Your task to perform on an android device: turn pop-ups off in chrome Image 0: 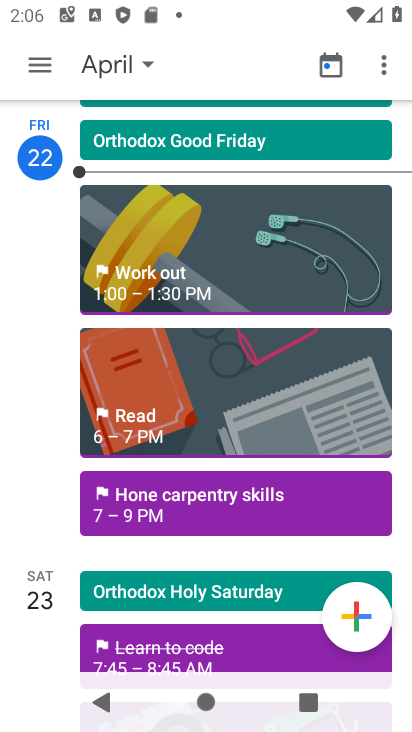
Step 0: press home button
Your task to perform on an android device: turn pop-ups off in chrome Image 1: 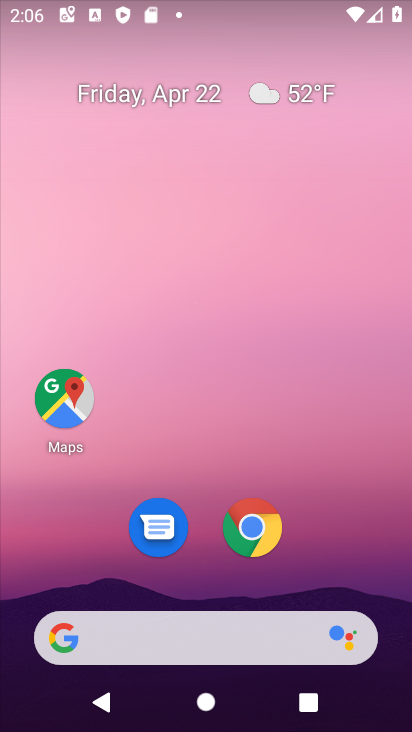
Step 1: drag from (345, 520) to (351, 112)
Your task to perform on an android device: turn pop-ups off in chrome Image 2: 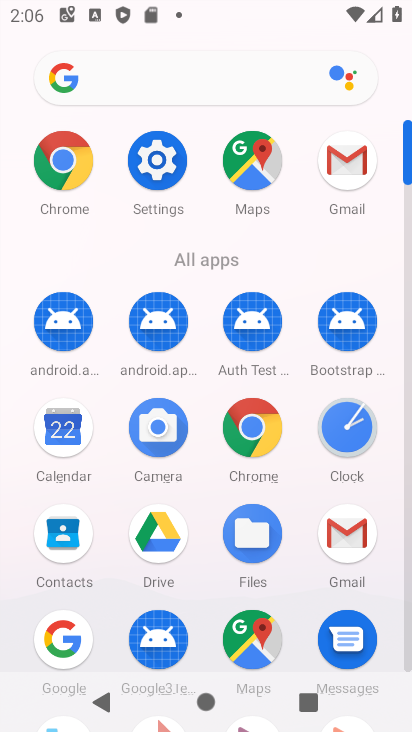
Step 2: click (50, 155)
Your task to perform on an android device: turn pop-ups off in chrome Image 3: 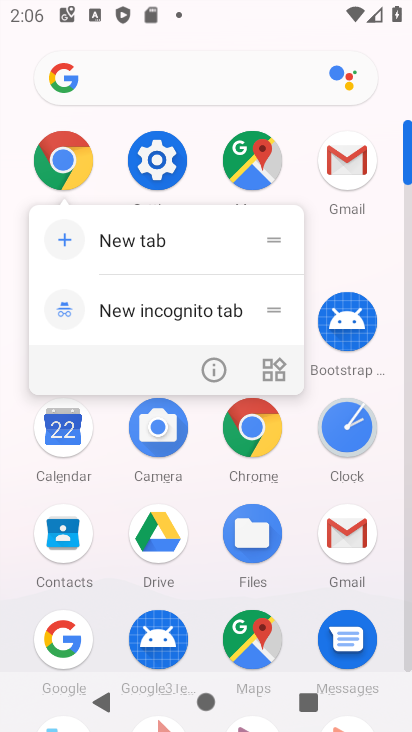
Step 3: click (53, 156)
Your task to perform on an android device: turn pop-ups off in chrome Image 4: 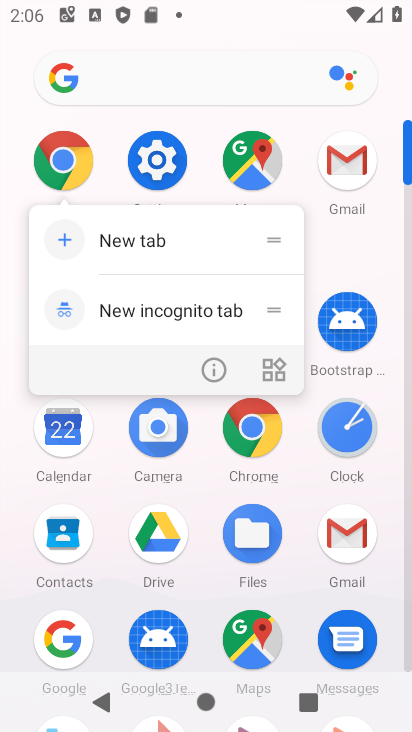
Step 4: click (52, 153)
Your task to perform on an android device: turn pop-ups off in chrome Image 5: 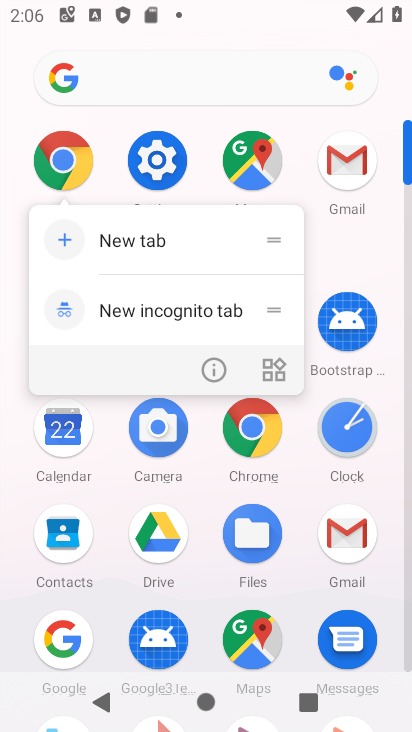
Step 5: click (52, 153)
Your task to perform on an android device: turn pop-ups off in chrome Image 6: 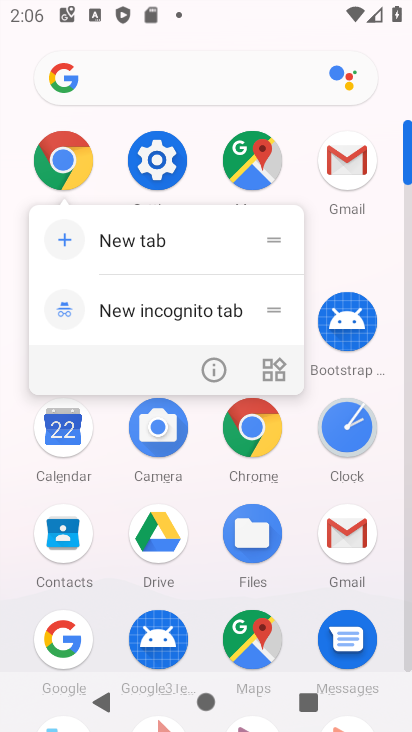
Step 6: click (52, 151)
Your task to perform on an android device: turn pop-ups off in chrome Image 7: 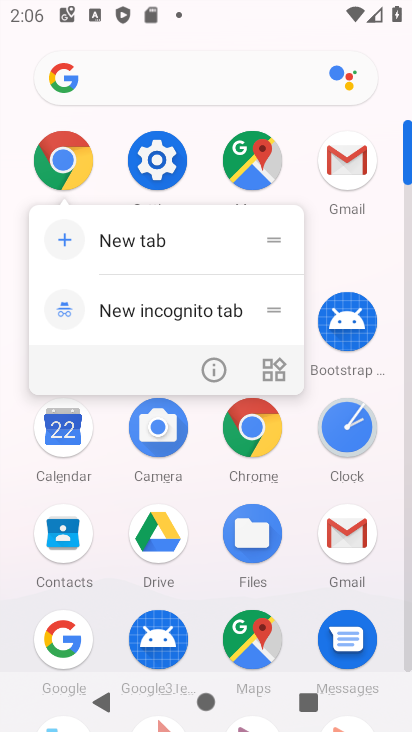
Step 7: click (52, 150)
Your task to perform on an android device: turn pop-ups off in chrome Image 8: 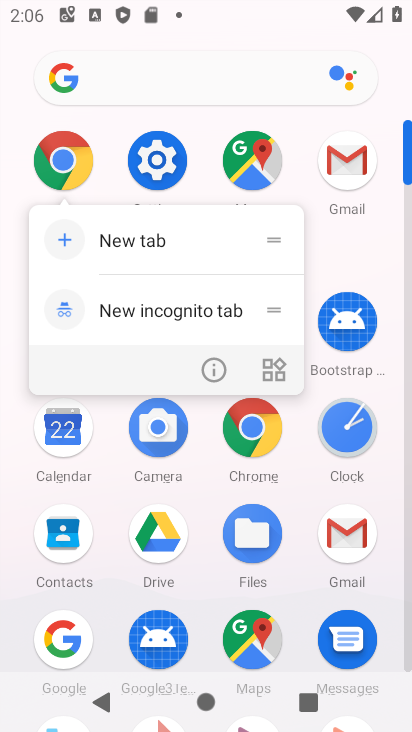
Step 8: click (52, 149)
Your task to perform on an android device: turn pop-ups off in chrome Image 9: 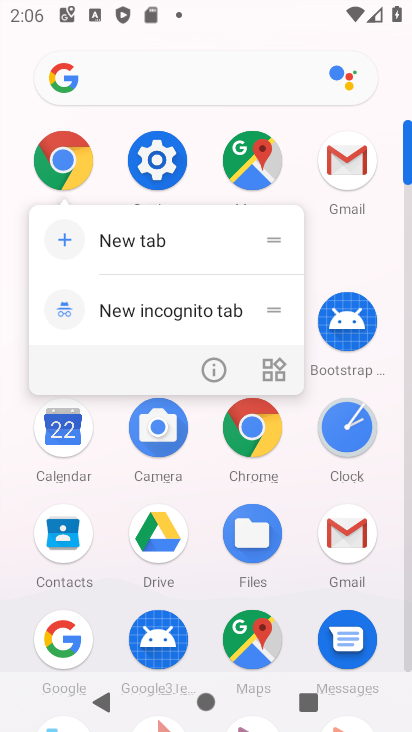
Step 9: click (52, 148)
Your task to perform on an android device: turn pop-ups off in chrome Image 10: 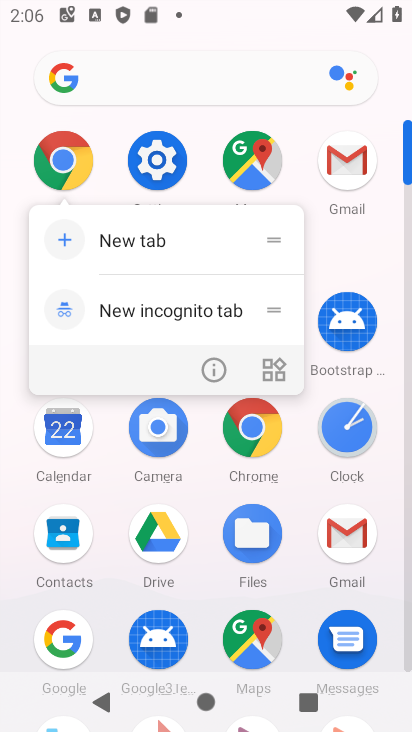
Step 10: click (52, 148)
Your task to perform on an android device: turn pop-ups off in chrome Image 11: 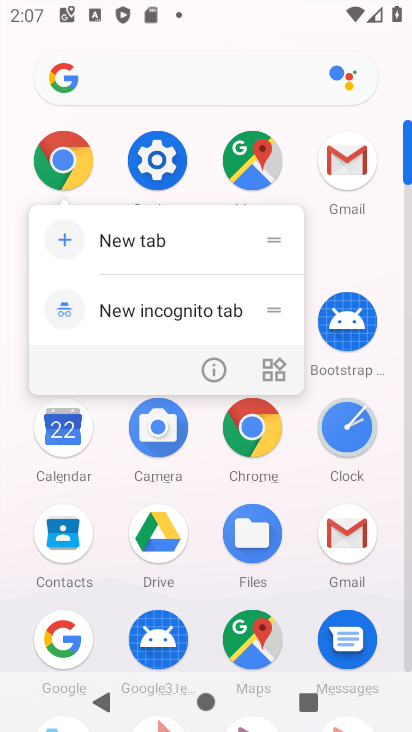
Step 11: click (52, 146)
Your task to perform on an android device: turn pop-ups off in chrome Image 12: 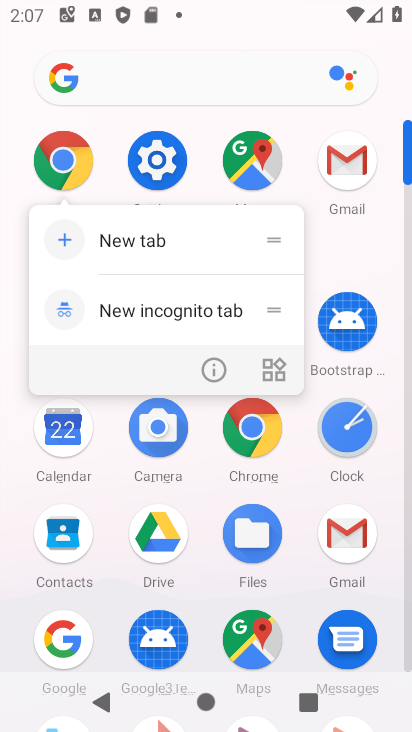
Step 12: click (52, 145)
Your task to perform on an android device: turn pop-ups off in chrome Image 13: 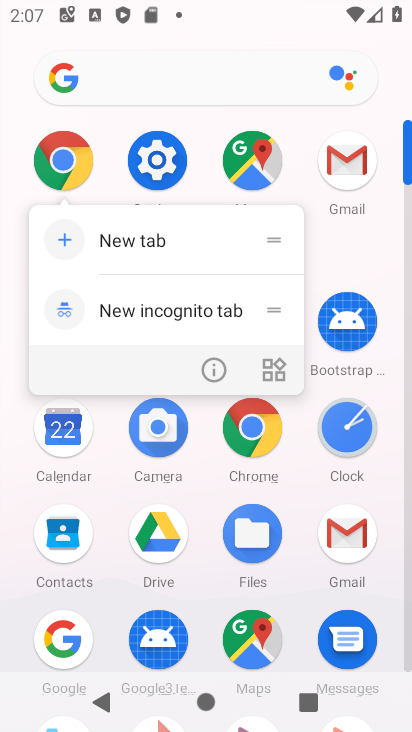
Step 13: click (52, 145)
Your task to perform on an android device: turn pop-ups off in chrome Image 14: 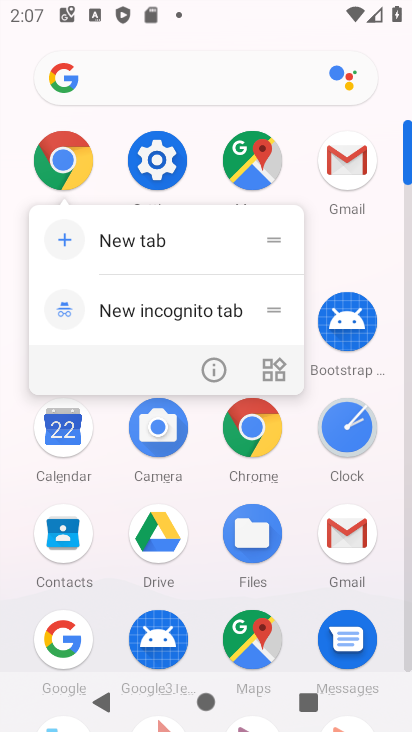
Step 14: click (52, 144)
Your task to perform on an android device: turn pop-ups off in chrome Image 15: 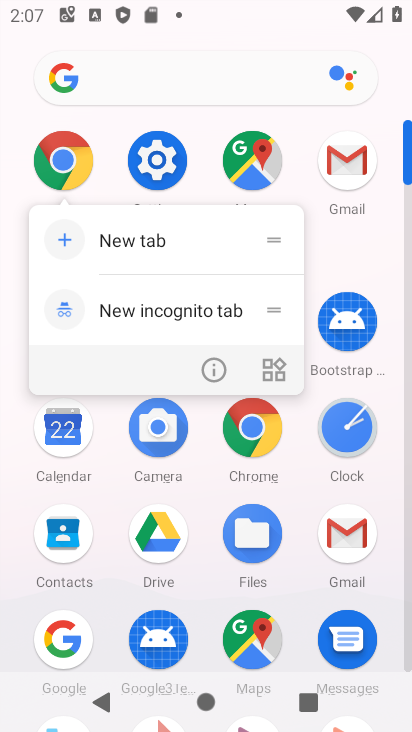
Step 15: click (52, 144)
Your task to perform on an android device: turn pop-ups off in chrome Image 16: 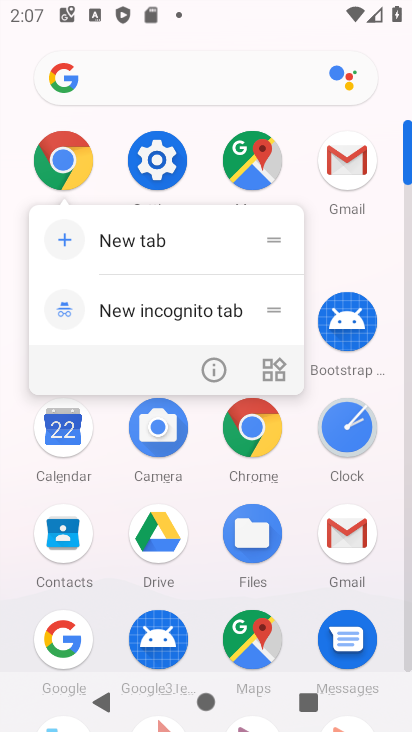
Step 16: click (52, 143)
Your task to perform on an android device: turn pop-ups off in chrome Image 17: 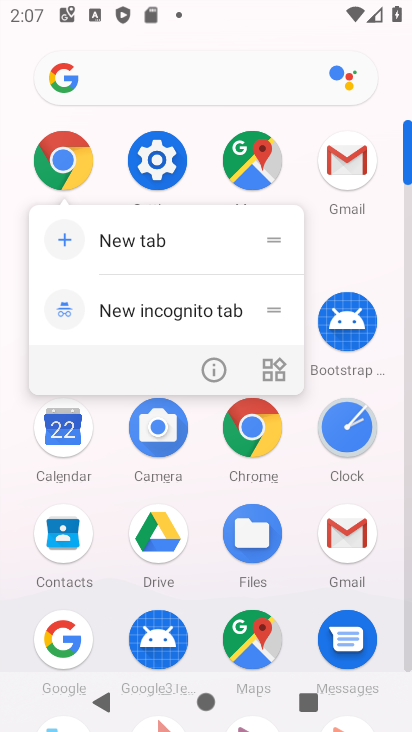
Step 17: click (52, 144)
Your task to perform on an android device: turn pop-ups off in chrome Image 18: 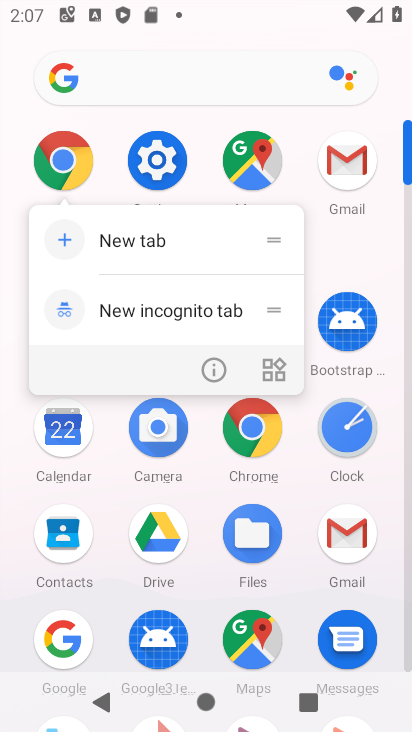
Step 18: click (52, 144)
Your task to perform on an android device: turn pop-ups off in chrome Image 19: 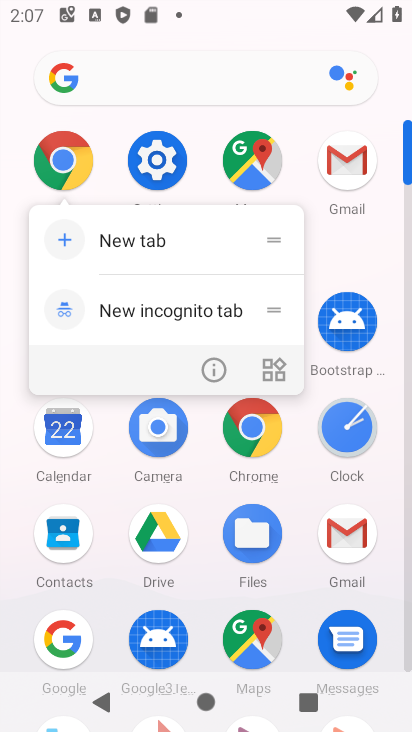
Step 19: click (52, 143)
Your task to perform on an android device: turn pop-ups off in chrome Image 20: 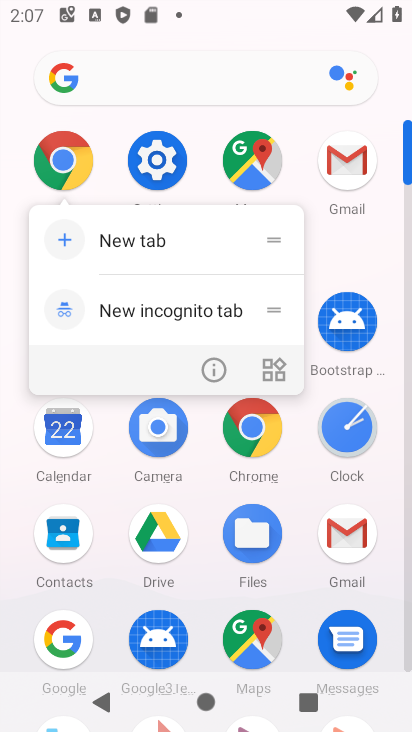
Step 20: click (52, 142)
Your task to perform on an android device: turn pop-ups off in chrome Image 21: 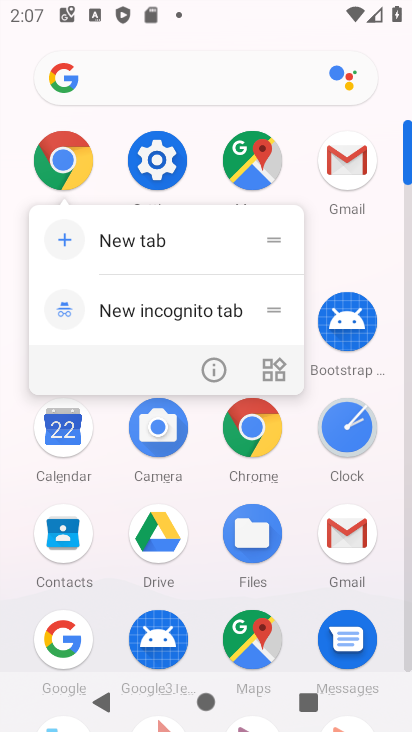
Step 21: click (52, 142)
Your task to perform on an android device: turn pop-ups off in chrome Image 22: 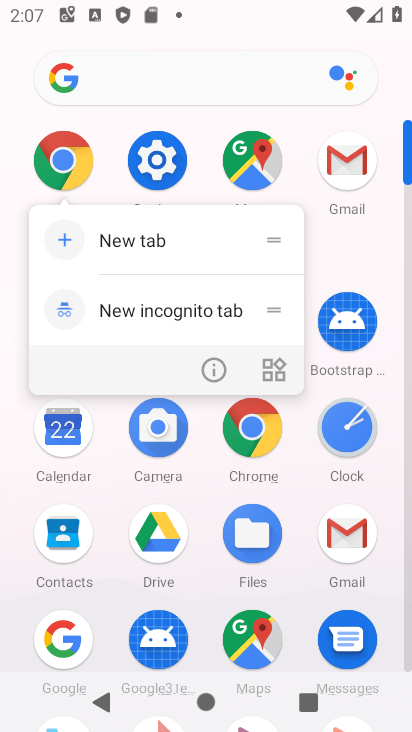
Step 22: click (52, 141)
Your task to perform on an android device: turn pop-ups off in chrome Image 23: 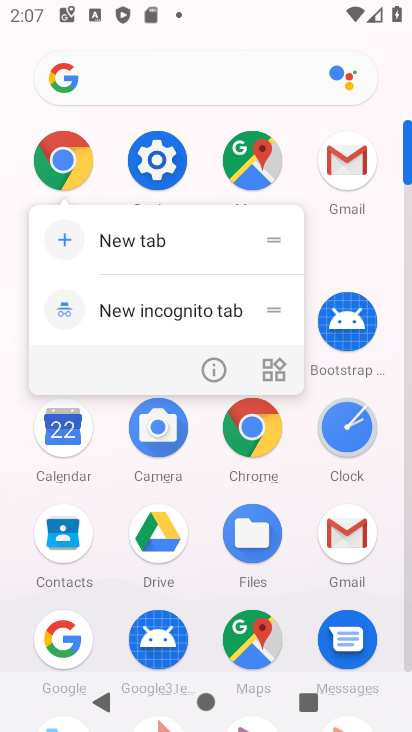
Step 23: click (52, 140)
Your task to perform on an android device: turn pop-ups off in chrome Image 24: 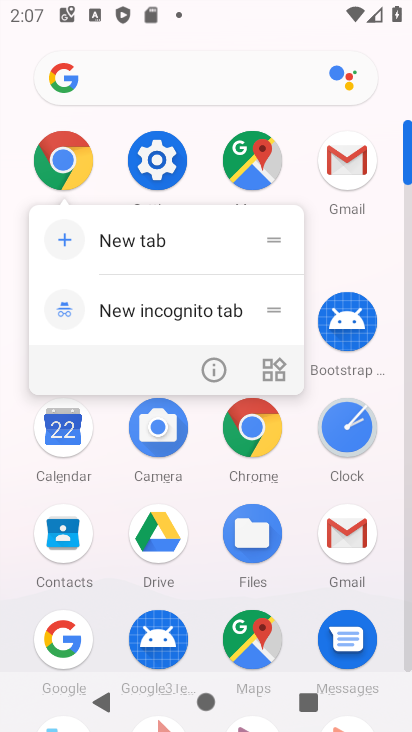
Step 24: click (52, 139)
Your task to perform on an android device: turn pop-ups off in chrome Image 25: 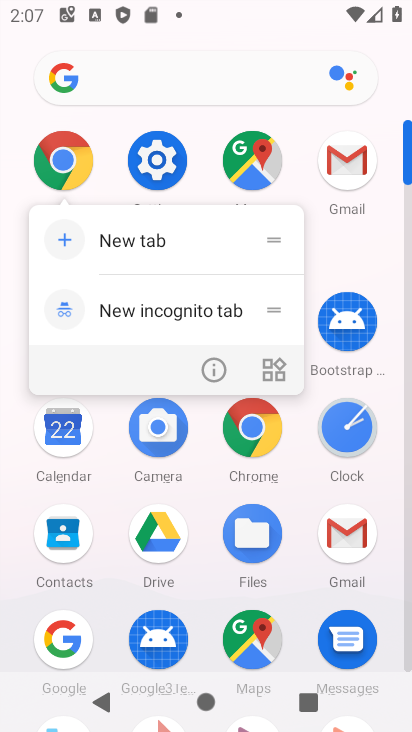
Step 25: click (66, 179)
Your task to perform on an android device: turn pop-ups off in chrome Image 26: 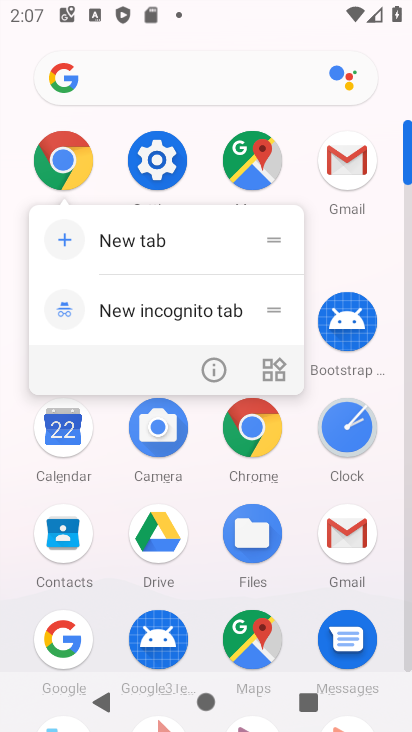
Step 26: click (66, 179)
Your task to perform on an android device: turn pop-ups off in chrome Image 27: 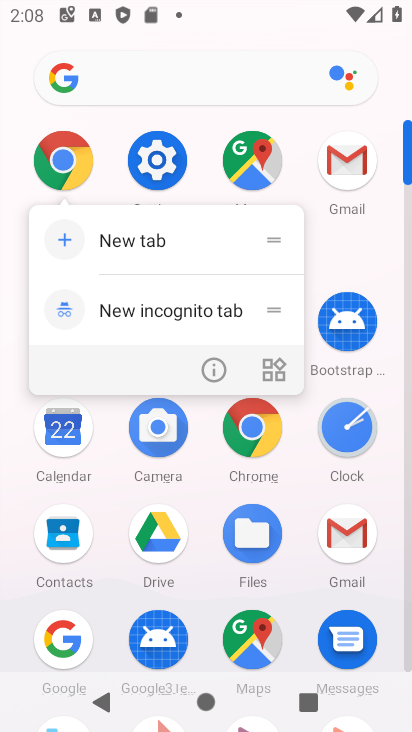
Step 27: click (67, 146)
Your task to perform on an android device: turn pop-ups off in chrome Image 28: 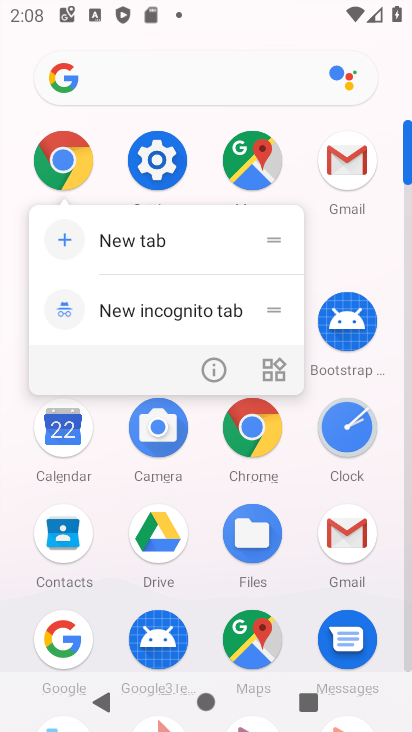
Step 28: click (70, 145)
Your task to perform on an android device: turn pop-ups off in chrome Image 29: 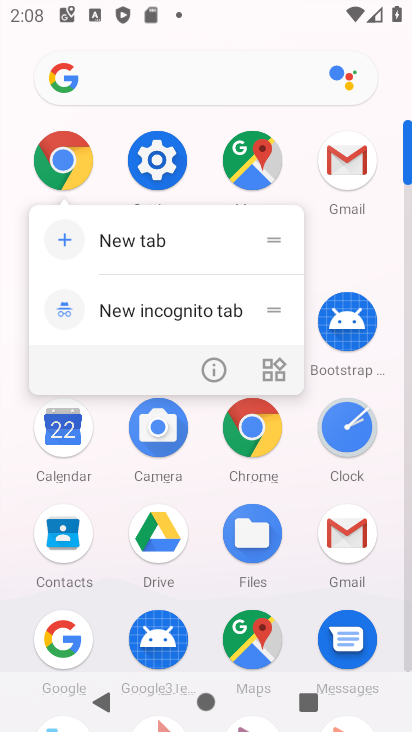
Step 29: click (71, 145)
Your task to perform on an android device: turn pop-ups off in chrome Image 30: 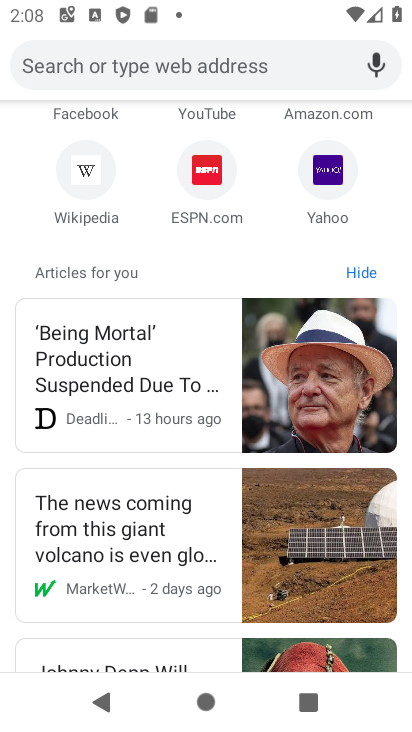
Step 30: drag from (398, 138) to (409, 334)
Your task to perform on an android device: turn pop-ups off in chrome Image 31: 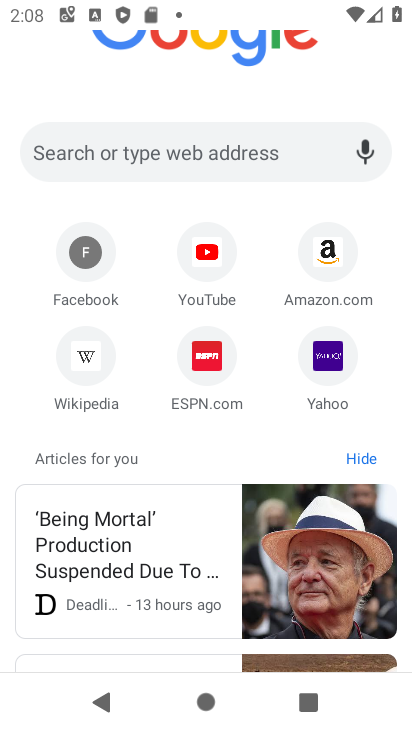
Step 31: drag from (374, 142) to (408, 344)
Your task to perform on an android device: turn pop-ups off in chrome Image 32: 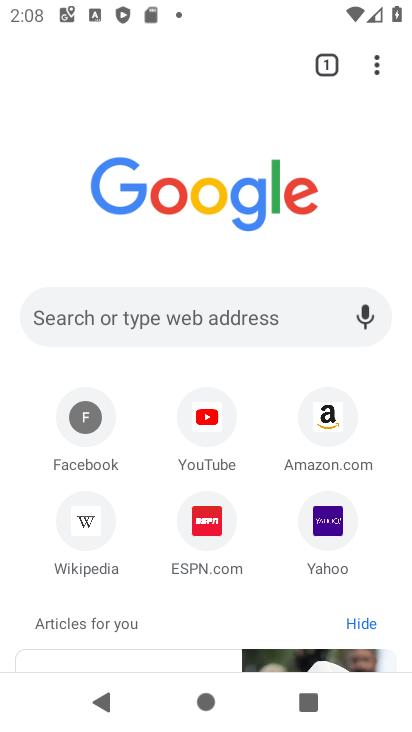
Step 32: drag from (370, 86) to (403, 297)
Your task to perform on an android device: turn pop-ups off in chrome Image 33: 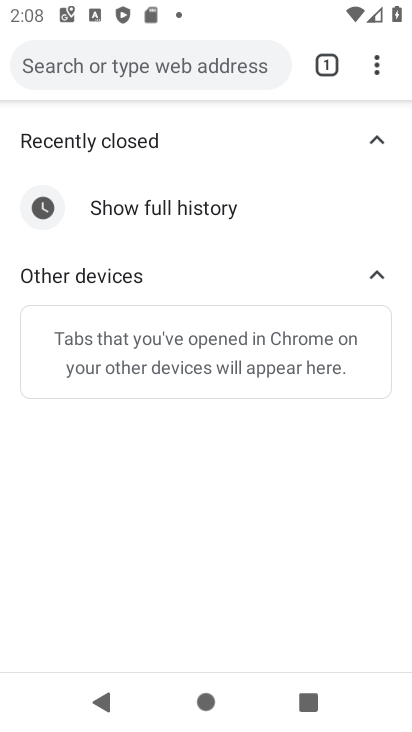
Step 33: drag from (374, 57) to (211, 563)
Your task to perform on an android device: turn pop-ups off in chrome Image 34: 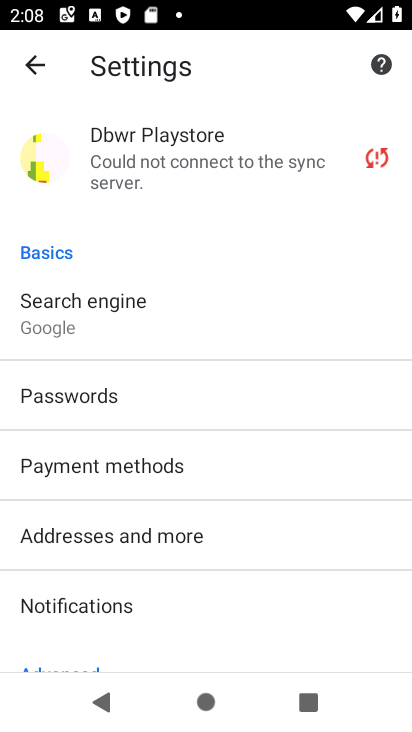
Step 34: drag from (170, 521) to (118, 214)
Your task to perform on an android device: turn pop-ups off in chrome Image 35: 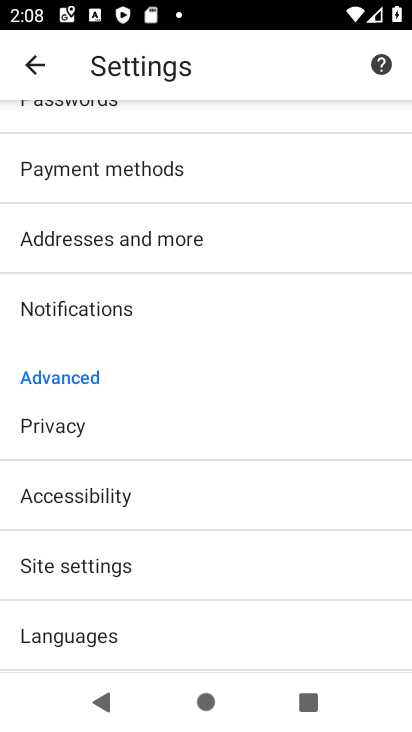
Step 35: click (133, 567)
Your task to perform on an android device: turn pop-ups off in chrome Image 36: 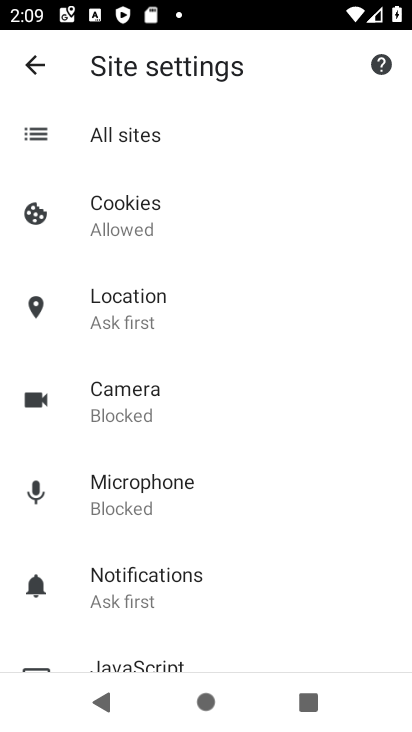
Step 36: drag from (174, 520) to (67, 103)
Your task to perform on an android device: turn pop-ups off in chrome Image 37: 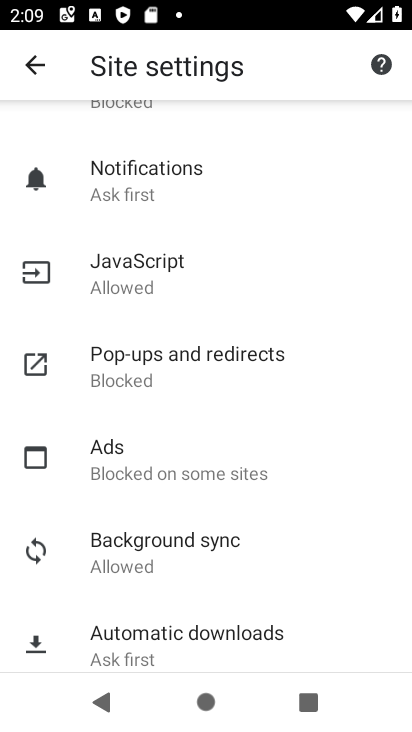
Step 37: click (179, 365)
Your task to perform on an android device: turn pop-ups off in chrome Image 38: 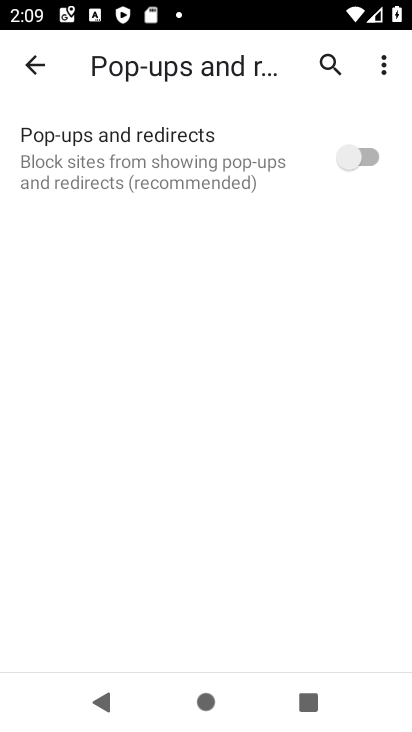
Step 38: task complete